Your task to perform on an android device: empty trash in the gmail app Image 0: 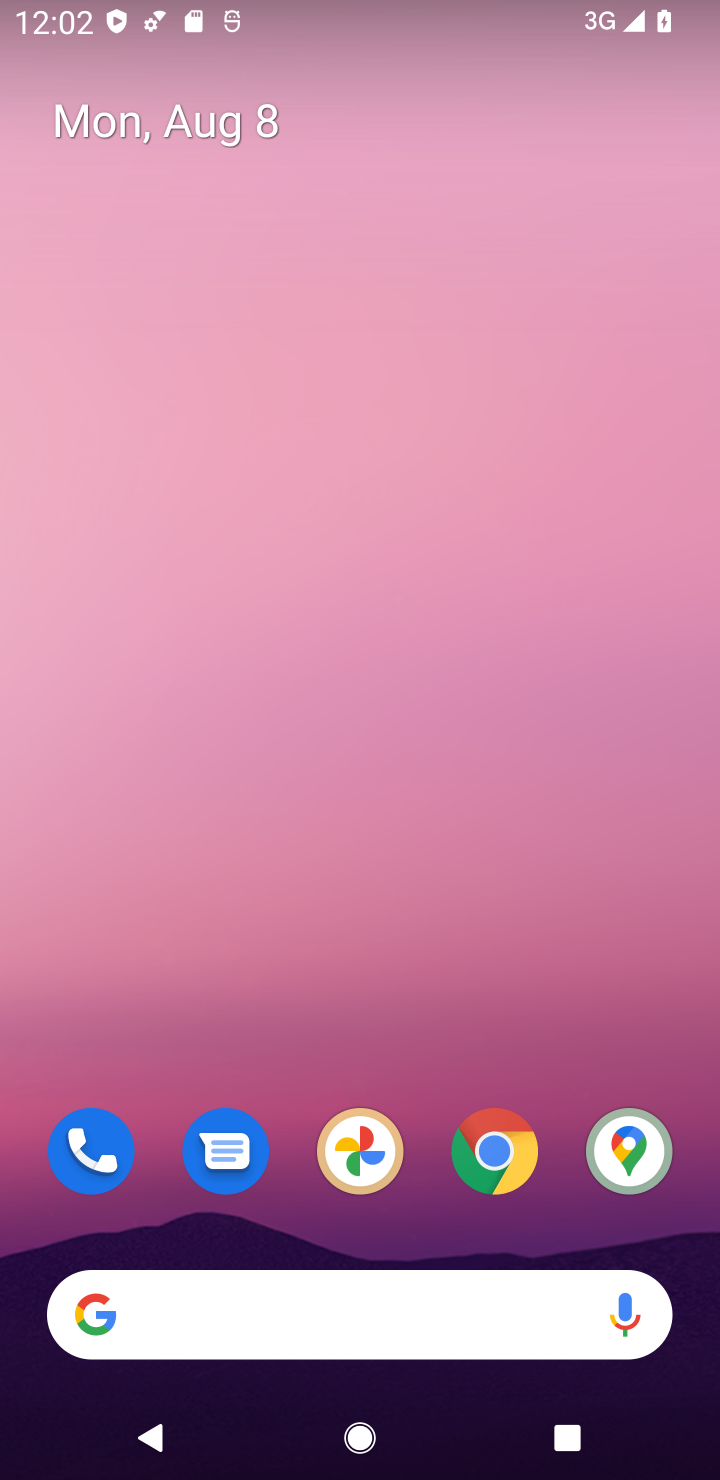
Step 0: drag from (220, 1257) to (307, 128)
Your task to perform on an android device: empty trash in the gmail app Image 1: 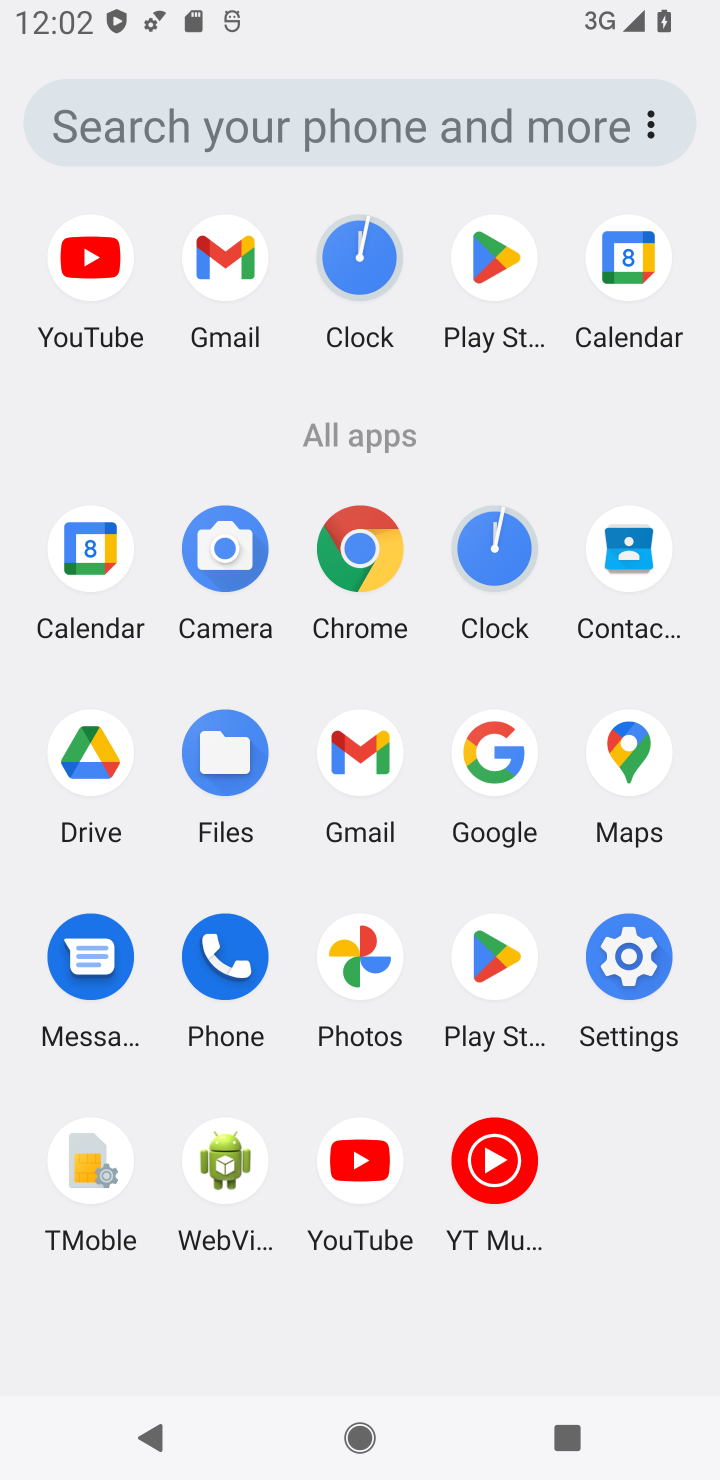
Step 1: click (352, 784)
Your task to perform on an android device: empty trash in the gmail app Image 2: 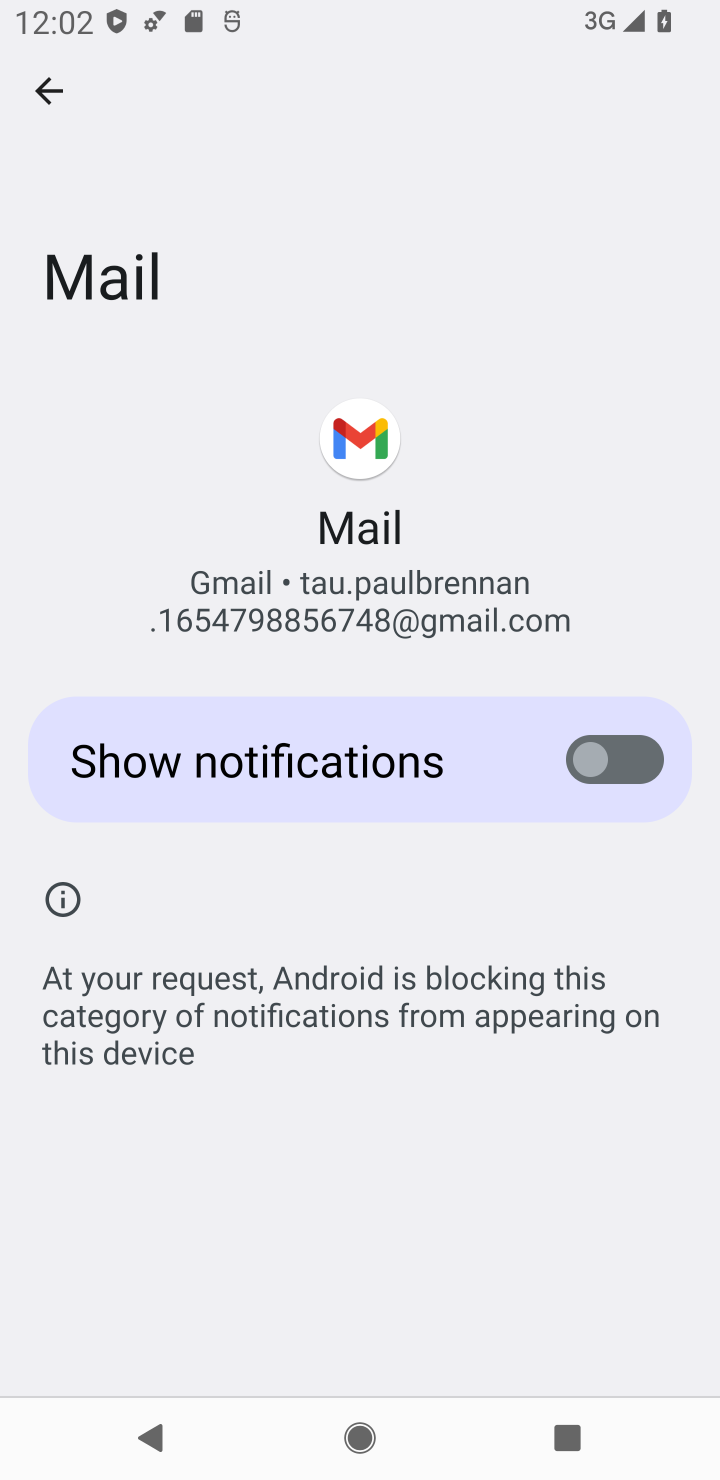
Step 2: click (44, 89)
Your task to perform on an android device: empty trash in the gmail app Image 3: 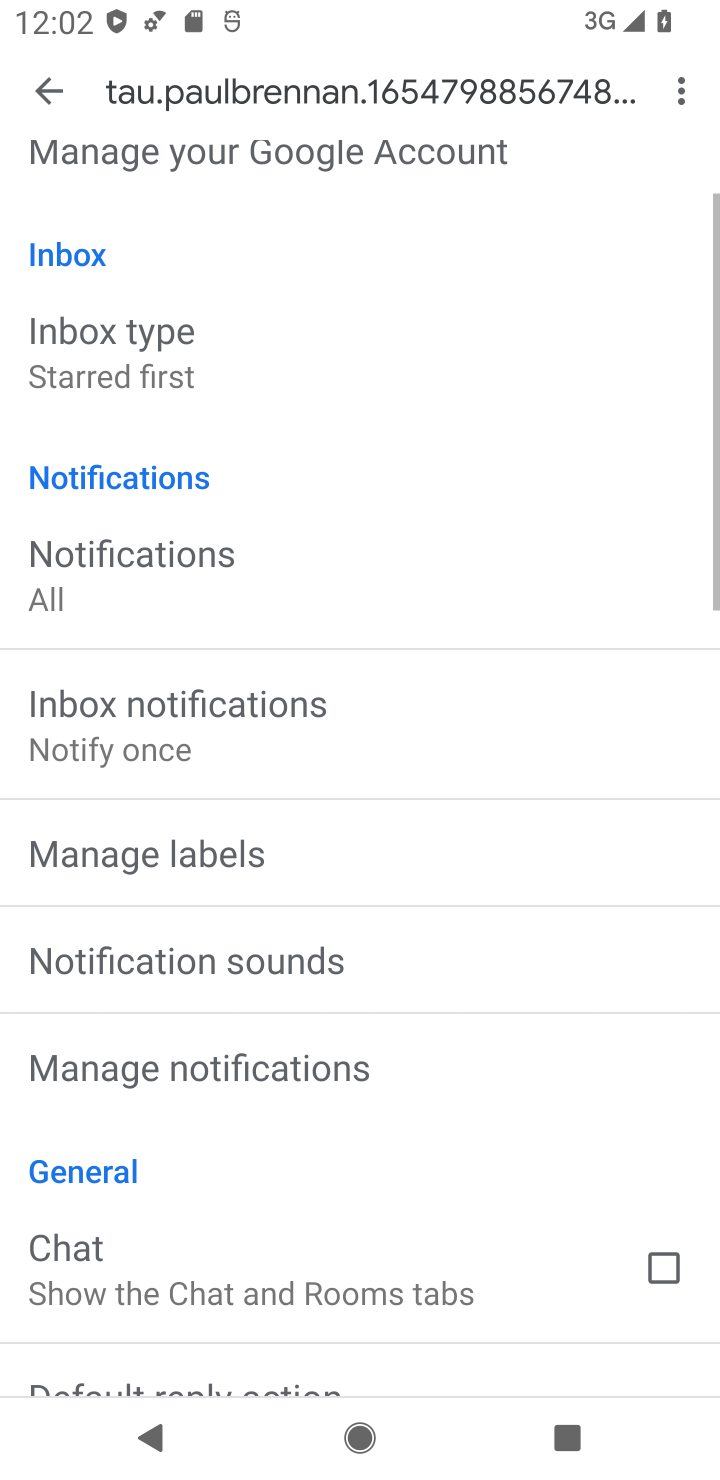
Step 3: click (35, 101)
Your task to perform on an android device: empty trash in the gmail app Image 4: 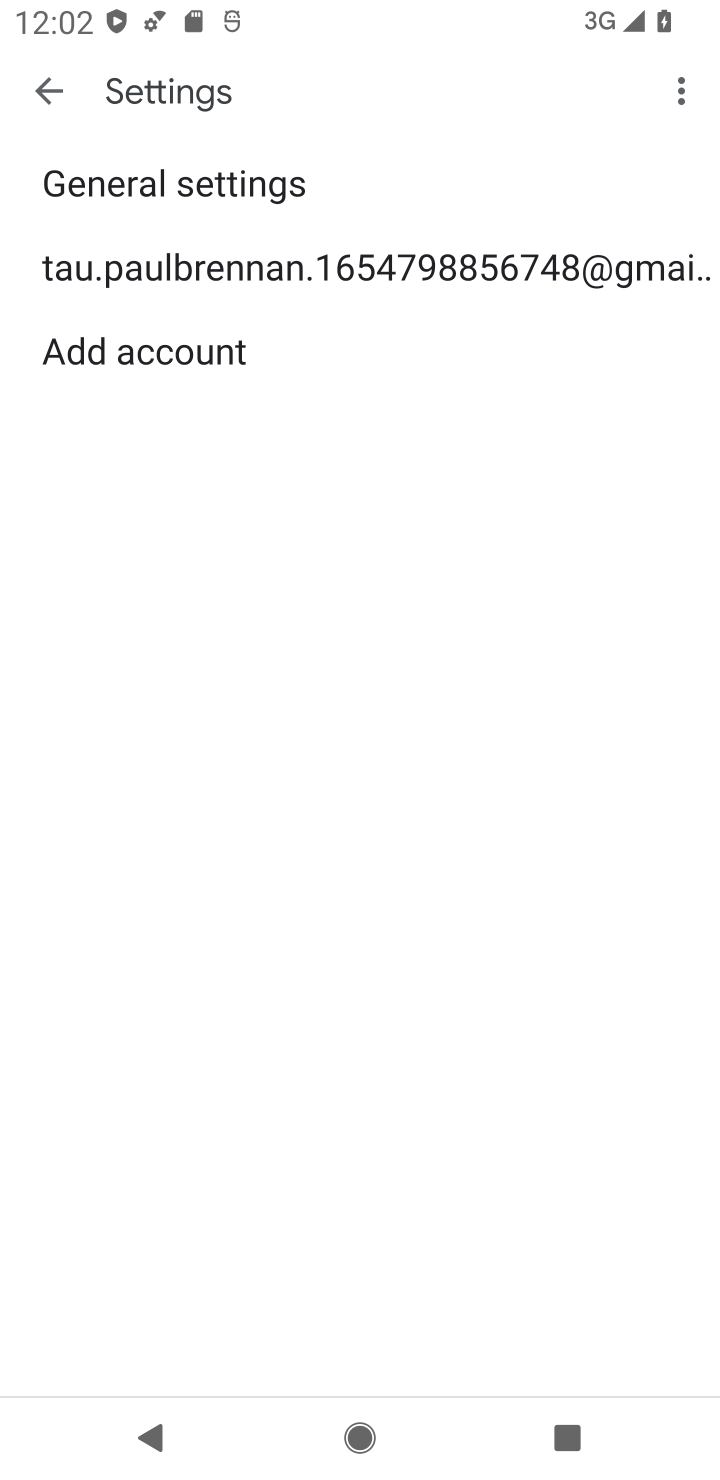
Step 4: click (35, 102)
Your task to perform on an android device: empty trash in the gmail app Image 5: 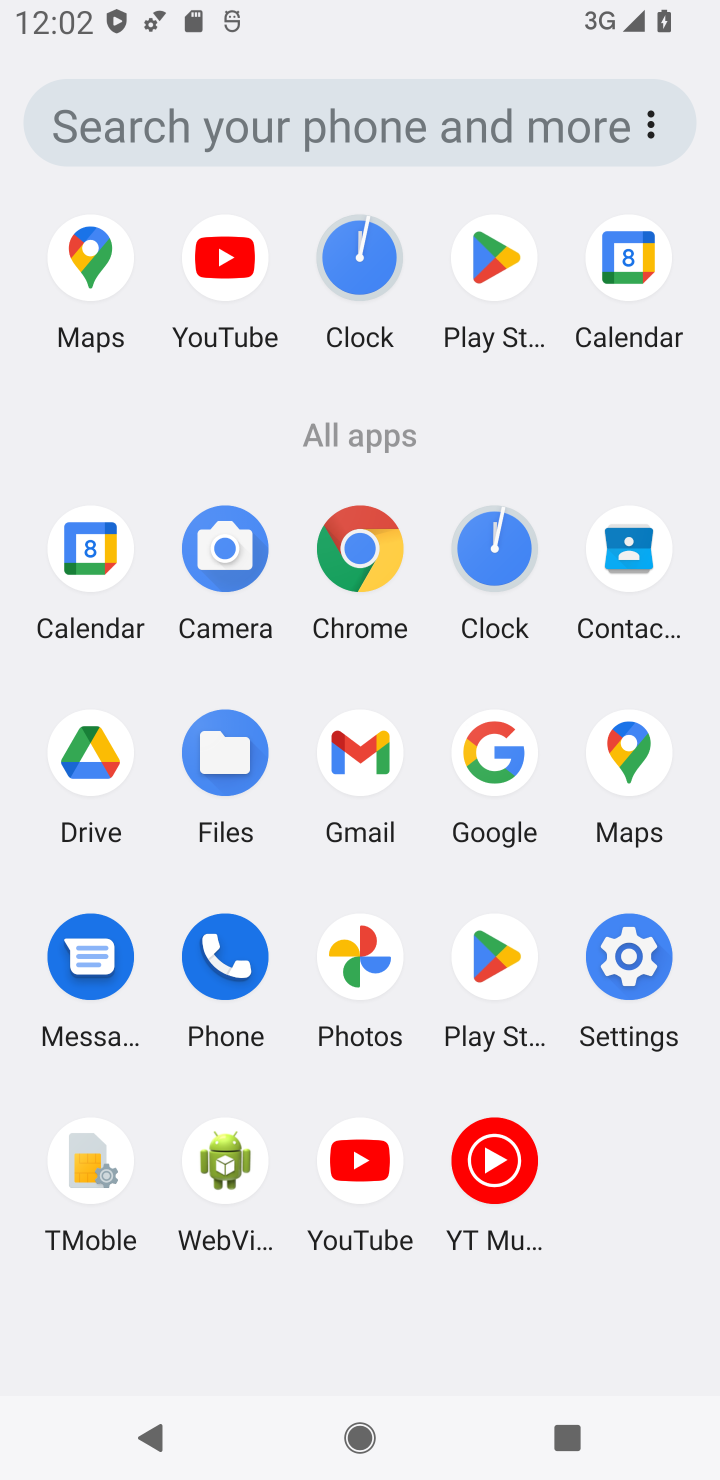
Step 5: click (386, 739)
Your task to perform on an android device: empty trash in the gmail app Image 6: 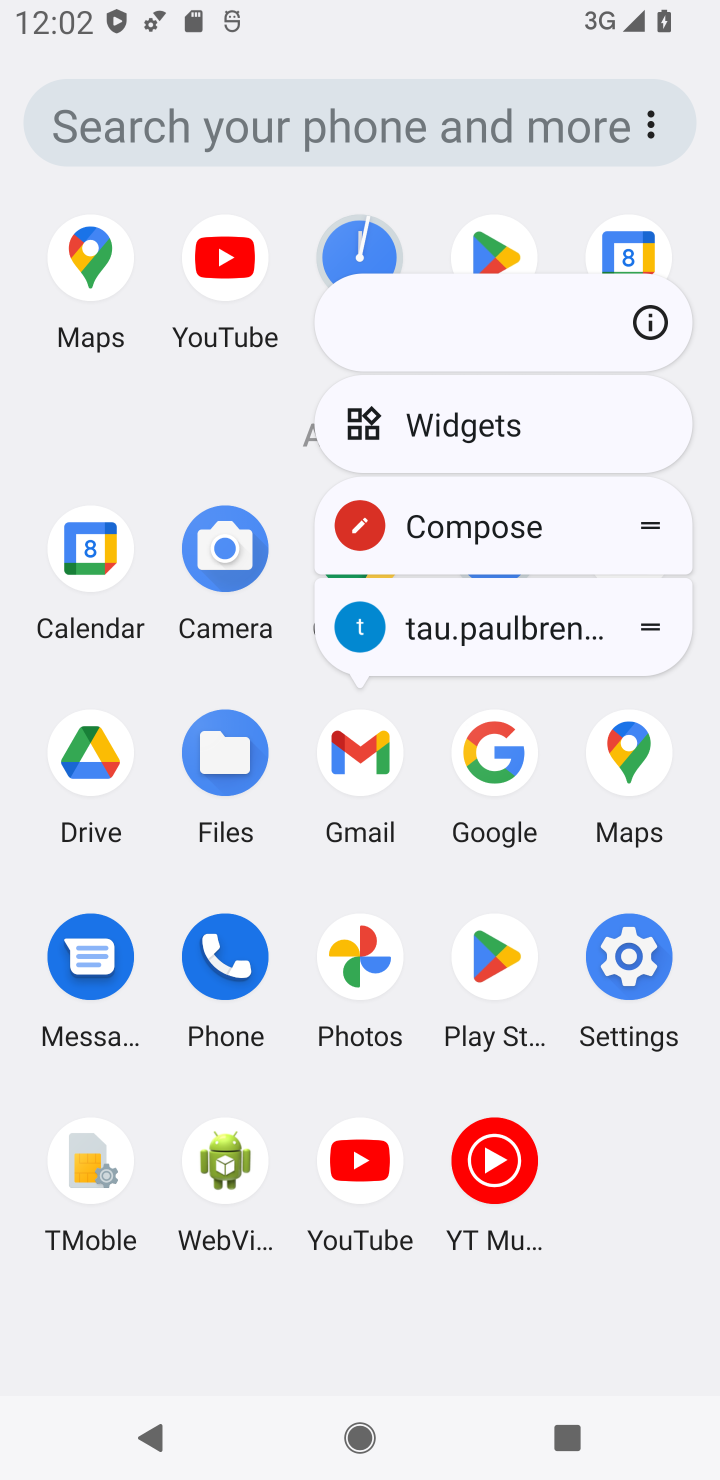
Step 6: click (343, 754)
Your task to perform on an android device: empty trash in the gmail app Image 7: 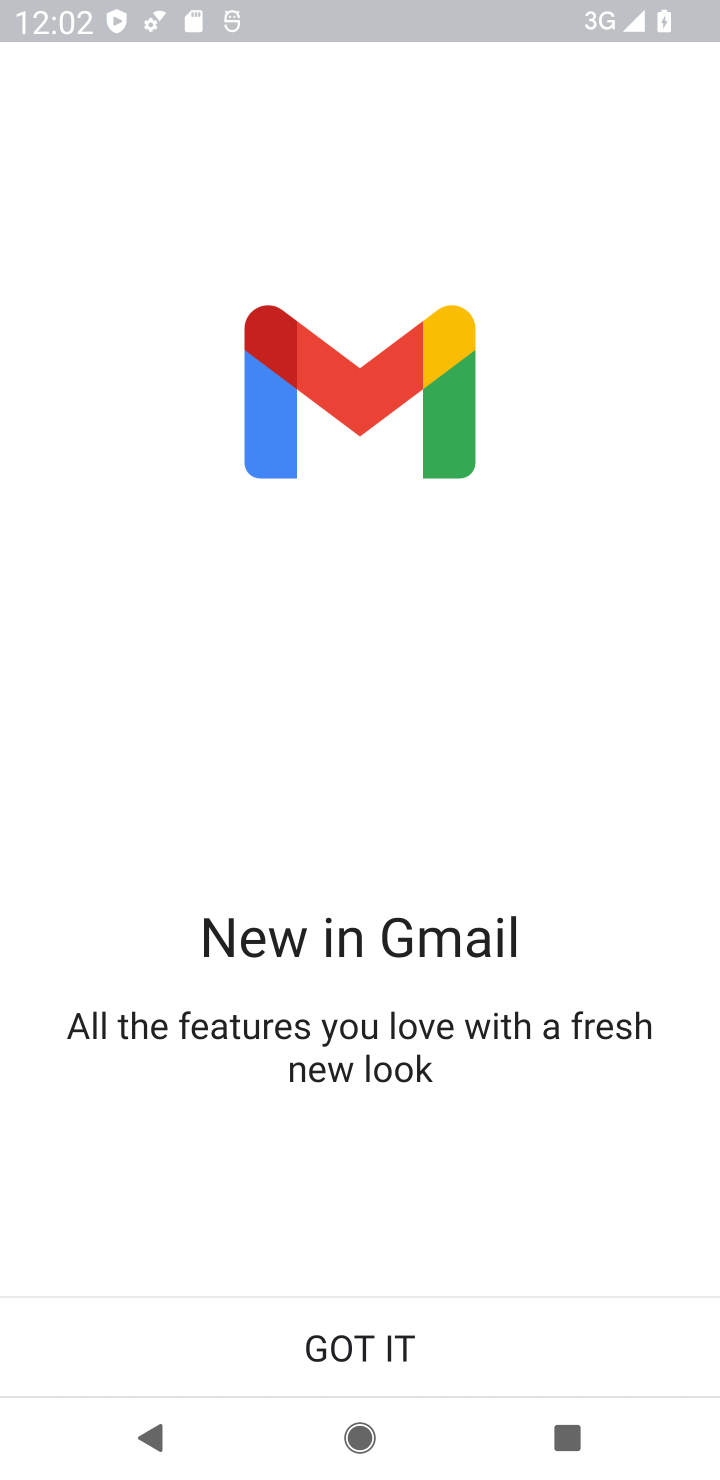
Step 7: click (359, 1342)
Your task to perform on an android device: empty trash in the gmail app Image 8: 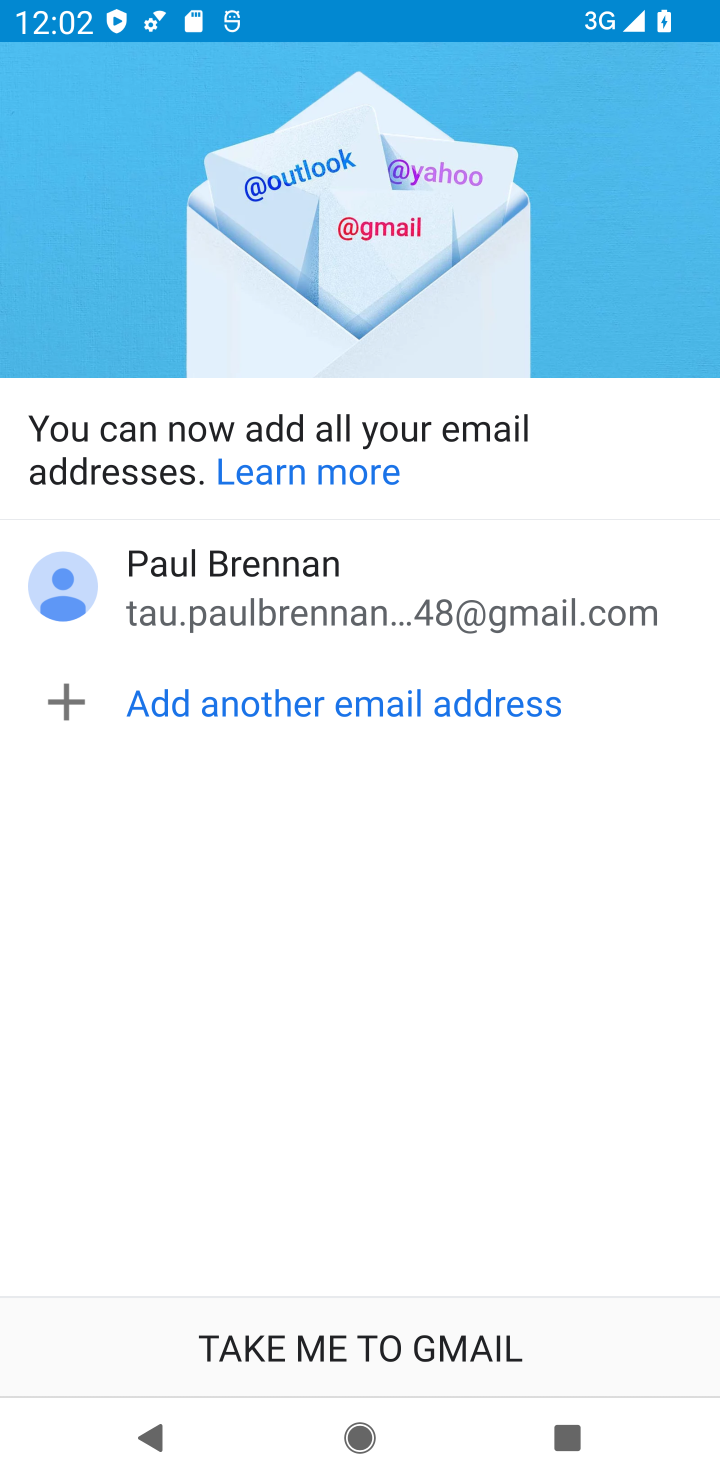
Step 8: click (344, 1333)
Your task to perform on an android device: empty trash in the gmail app Image 9: 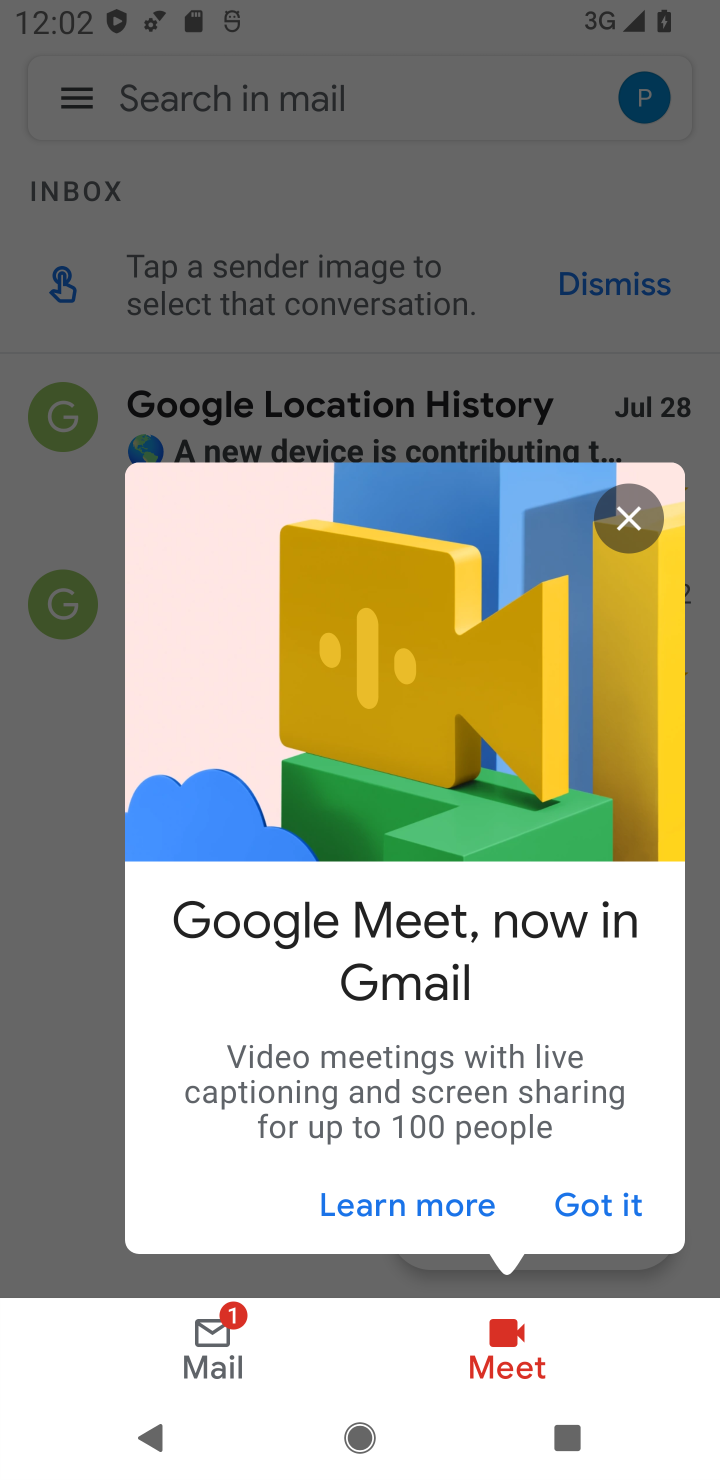
Step 9: click (581, 1213)
Your task to perform on an android device: empty trash in the gmail app Image 10: 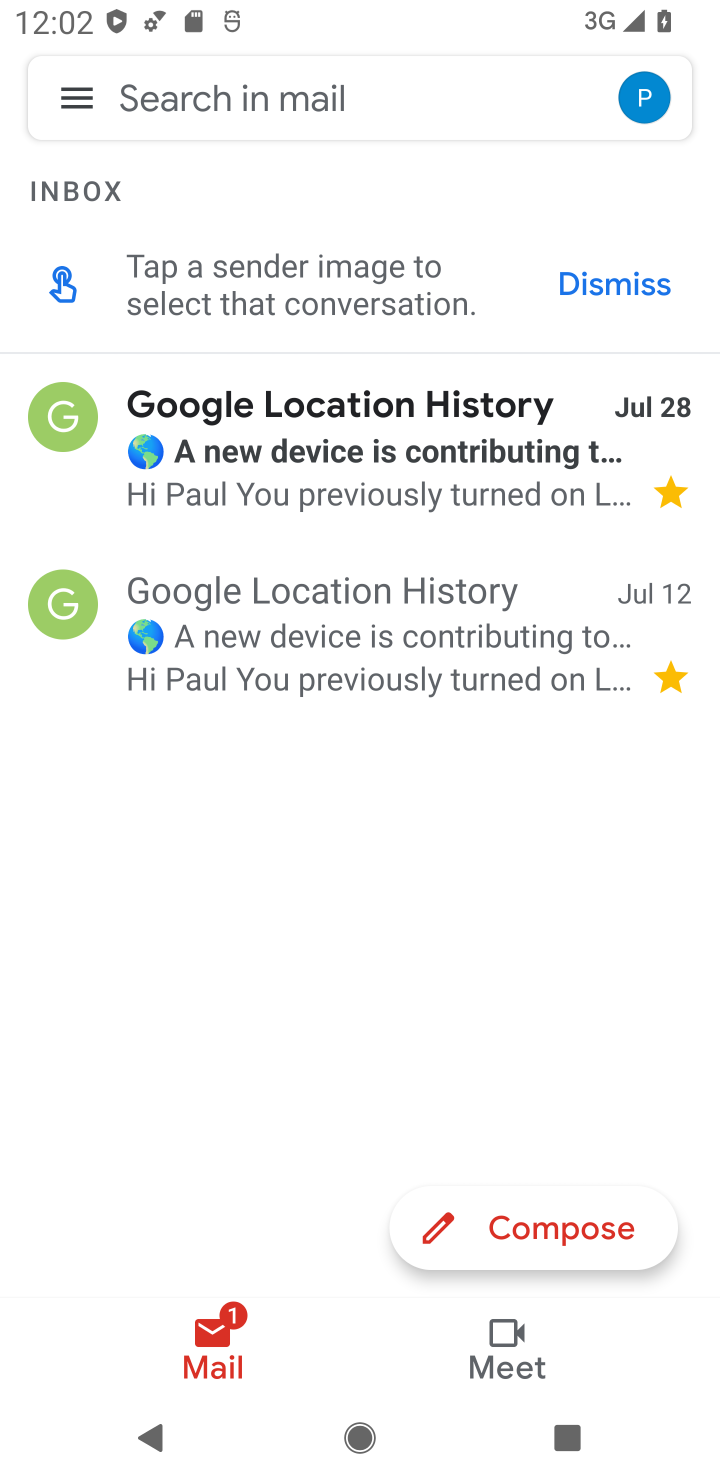
Step 10: click (77, 100)
Your task to perform on an android device: empty trash in the gmail app Image 11: 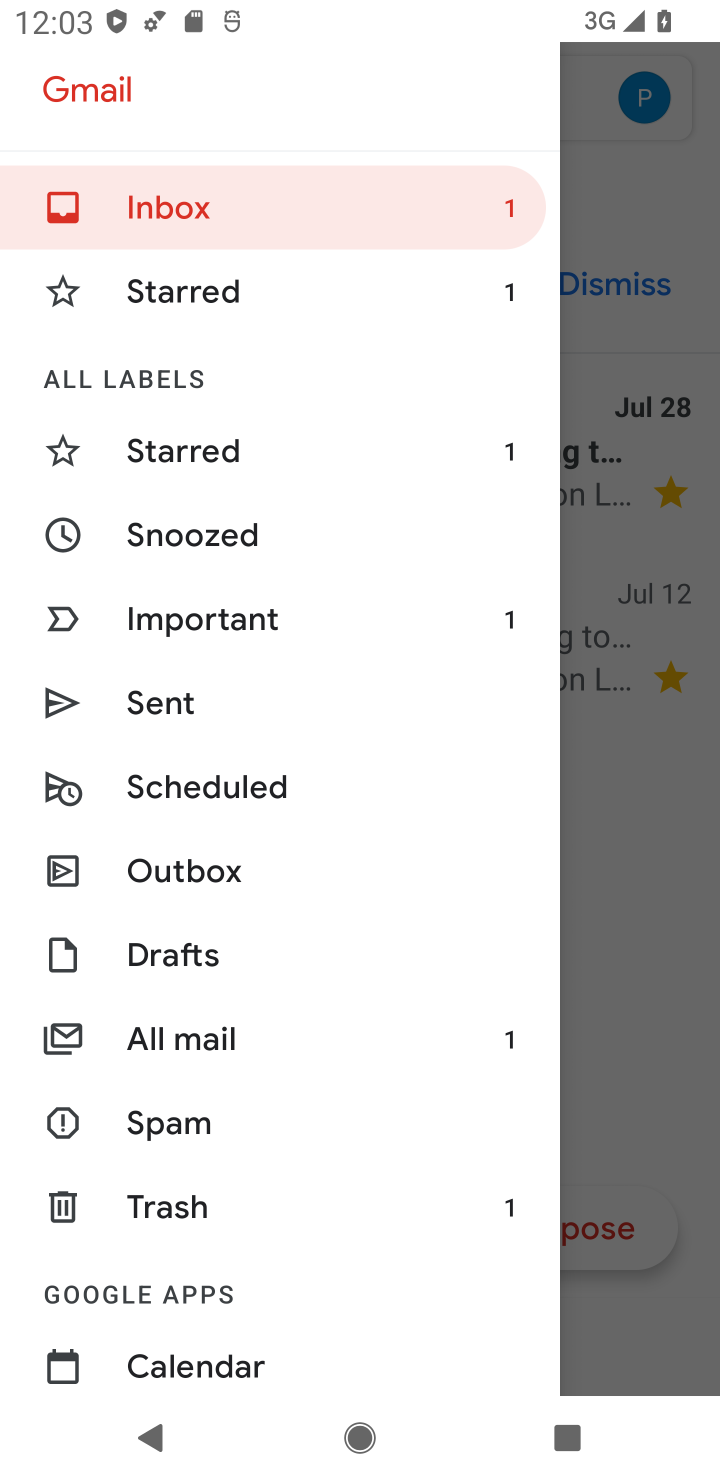
Step 11: click (177, 1210)
Your task to perform on an android device: empty trash in the gmail app Image 12: 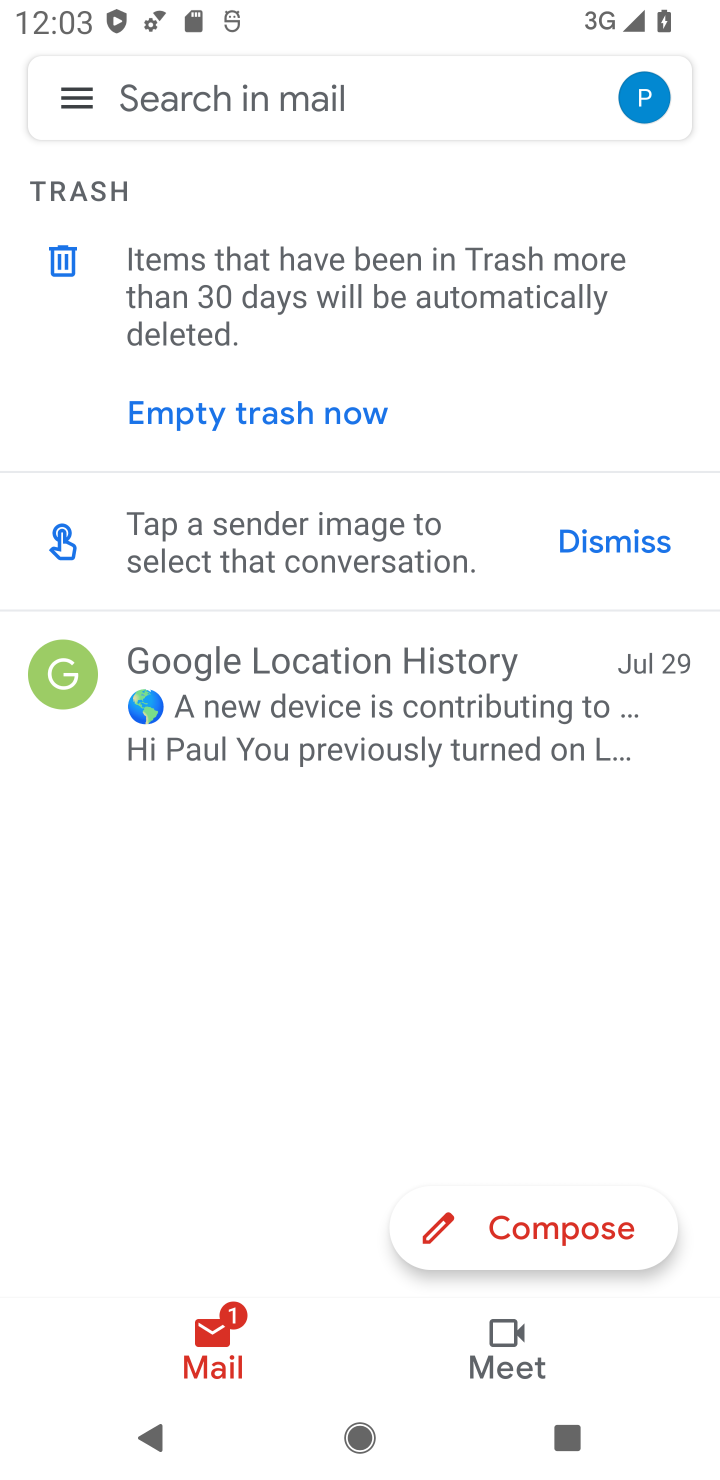
Step 12: task complete